Your task to perform on an android device: Open CNN.com Image 0: 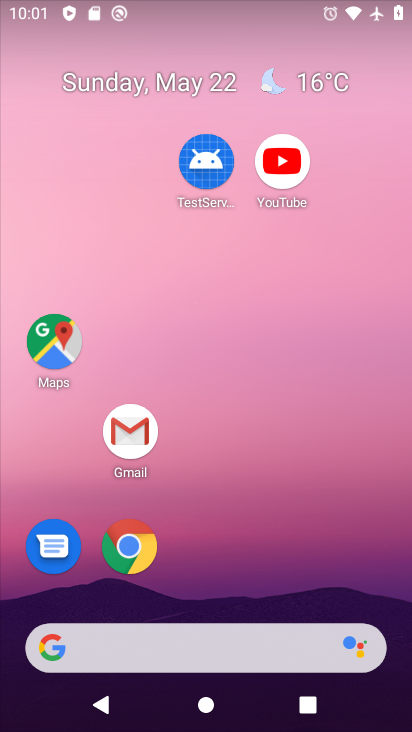
Step 0: drag from (264, 719) to (140, 106)
Your task to perform on an android device: Open CNN.com Image 1: 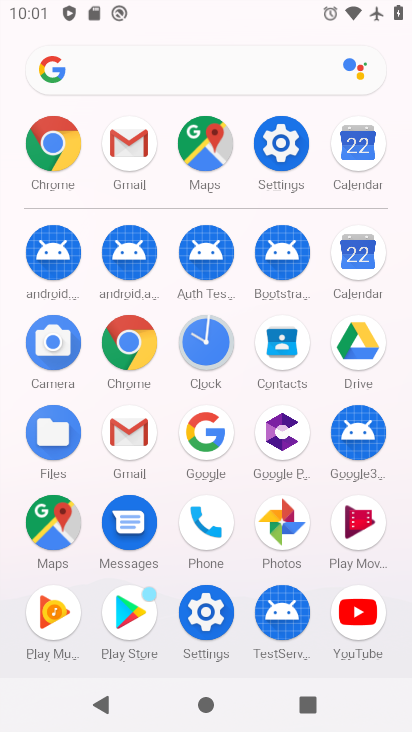
Step 1: click (59, 145)
Your task to perform on an android device: Open CNN.com Image 2: 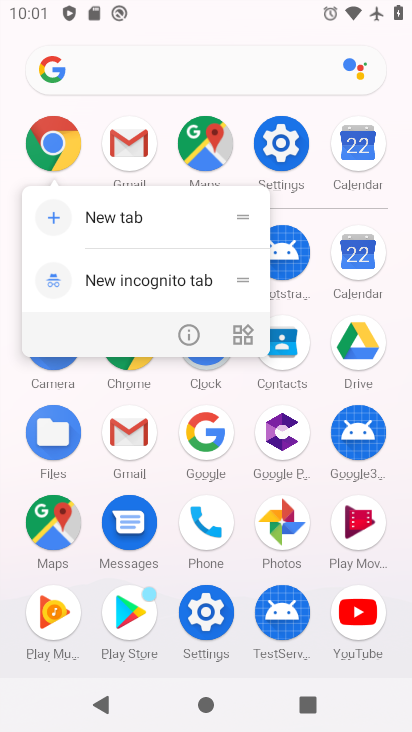
Step 2: click (70, 148)
Your task to perform on an android device: Open CNN.com Image 3: 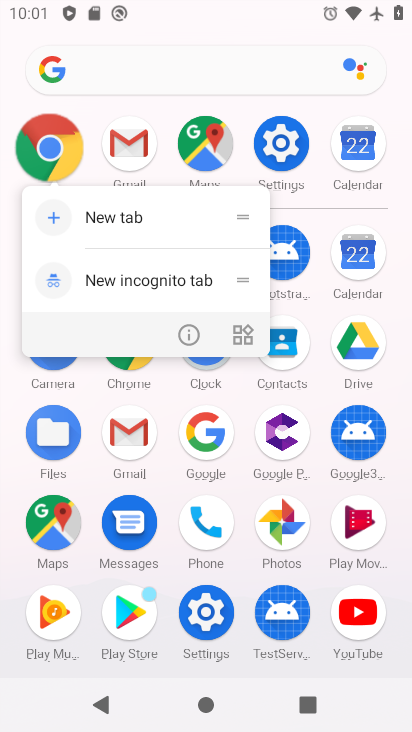
Step 3: click (64, 146)
Your task to perform on an android device: Open CNN.com Image 4: 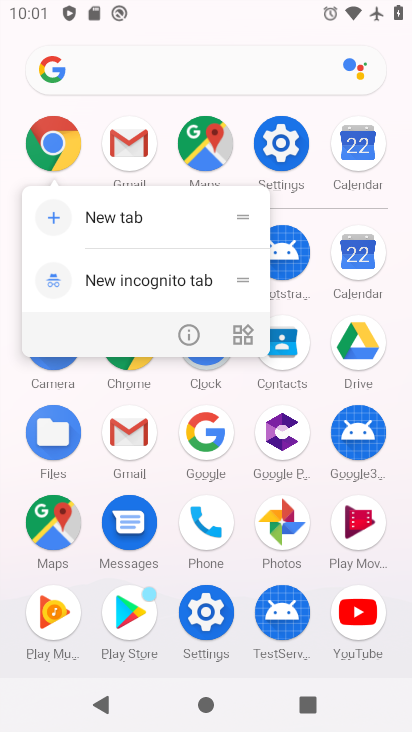
Step 4: click (64, 146)
Your task to perform on an android device: Open CNN.com Image 5: 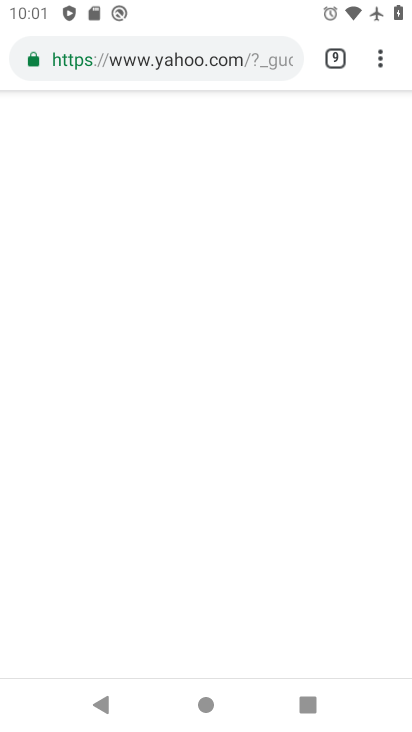
Step 5: task complete